Your task to perform on an android device: Open ESPN.com Image 0: 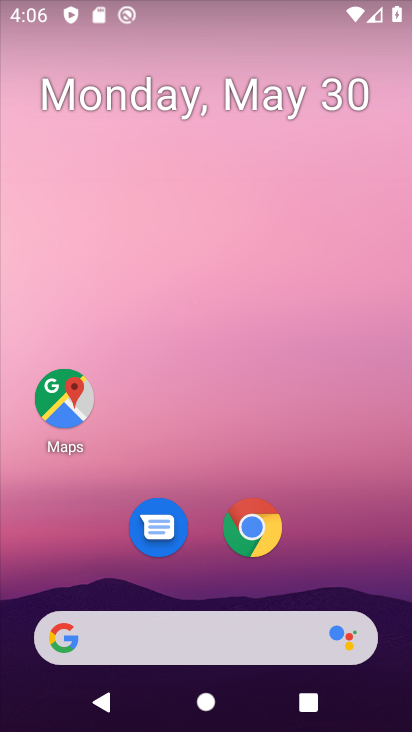
Step 0: click (246, 524)
Your task to perform on an android device: Open ESPN.com Image 1: 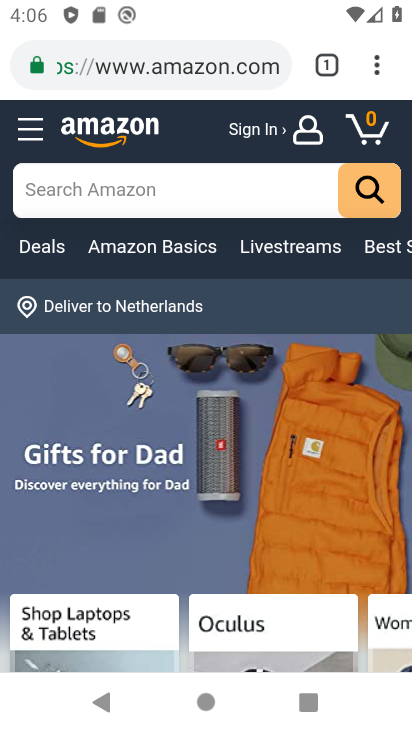
Step 1: click (375, 73)
Your task to perform on an android device: Open ESPN.com Image 2: 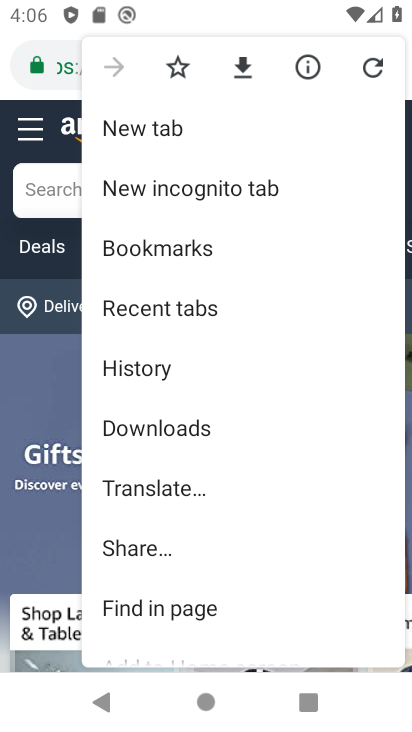
Step 2: click (143, 126)
Your task to perform on an android device: Open ESPN.com Image 3: 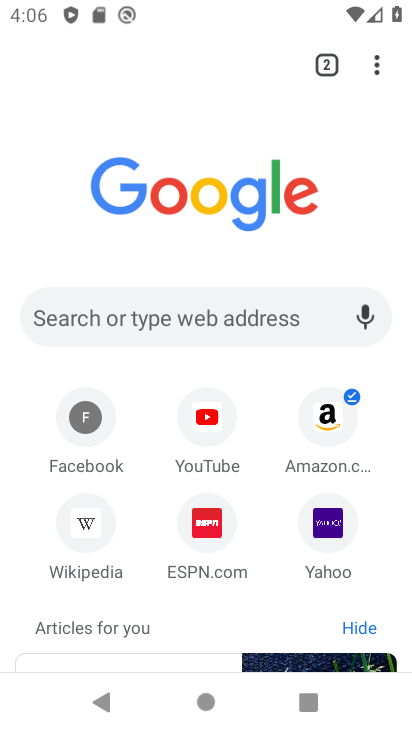
Step 3: click (203, 524)
Your task to perform on an android device: Open ESPN.com Image 4: 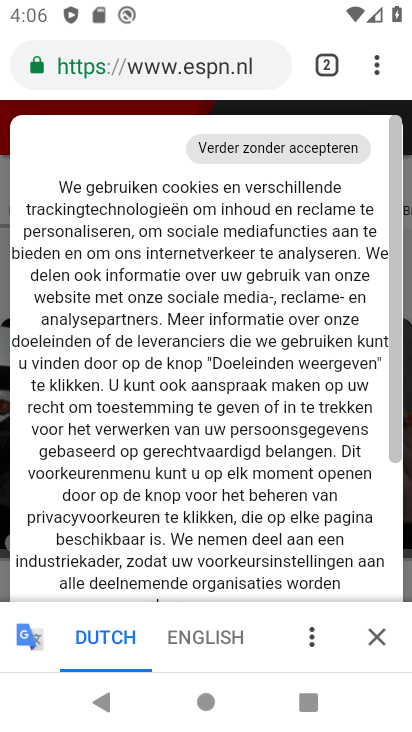
Step 4: task complete